Your task to perform on an android device: turn on wifi Image 0: 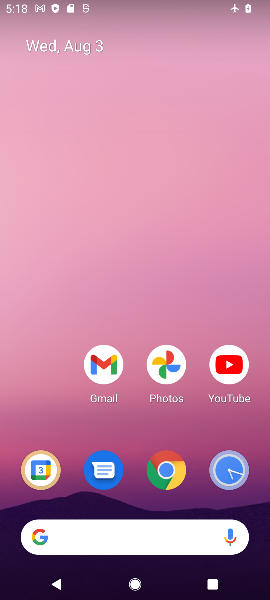
Step 0: drag from (153, 386) to (189, 76)
Your task to perform on an android device: turn on wifi Image 1: 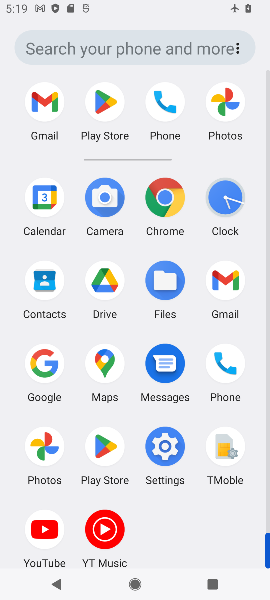
Step 1: click (159, 443)
Your task to perform on an android device: turn on wifi Image 2: 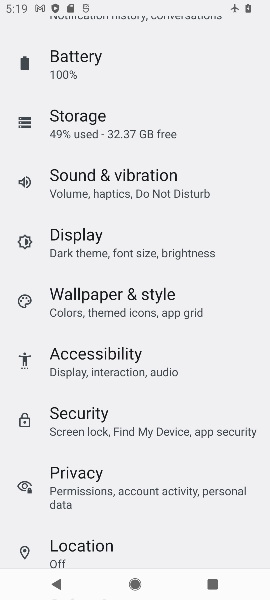
Step 2: drag from (216, 85) to (133, 474)
Your task to perform on an android device: turn on wifi Image 3: 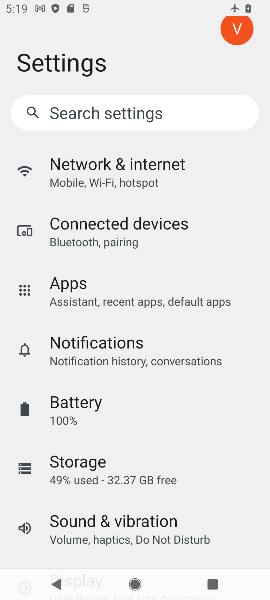
Step 3: click (142, 158)
Your task to perform on an android device: turn on wifi Image 4: 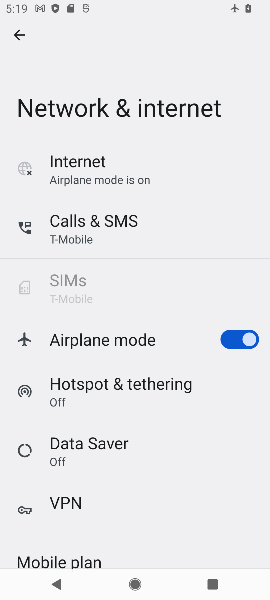
Step 4: click (123, 158)
Your task to perform on an android device: turn on wifi Image 5: 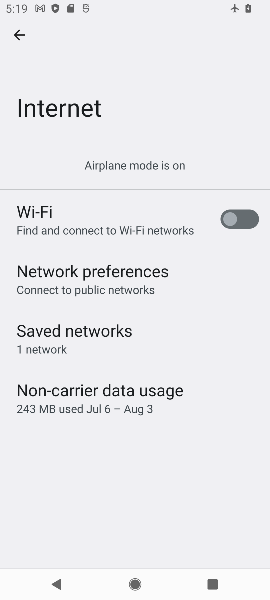
Step 5: click (228, 222)
Your task to perform on an android device: turn on wifi Image 6: 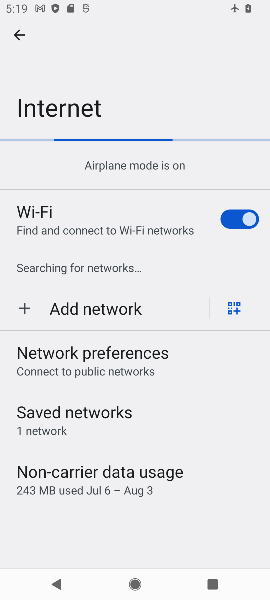
Step 6: task complete